Your task to perform on an android device: Go to Yahoo.com Image 0: 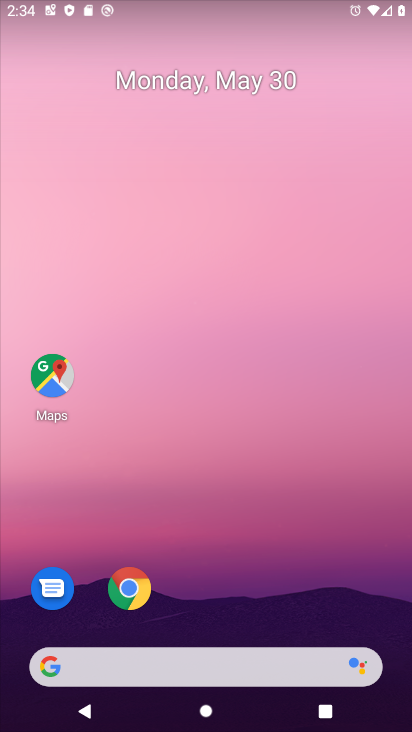
Step 0: click (148, 595)
Your task to perform on an android device: Go to Yahoo.com Image 1: 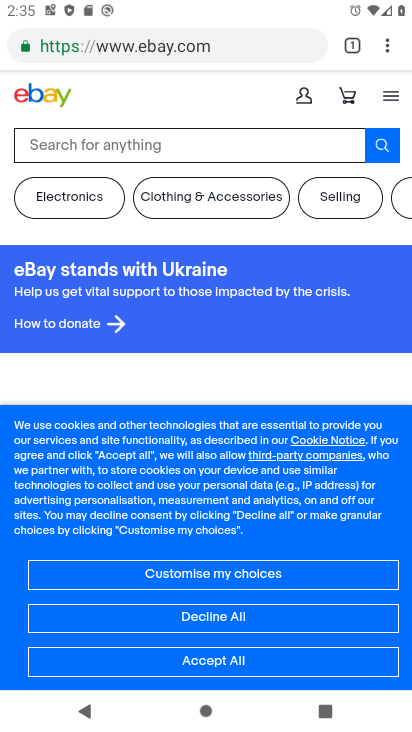
Step 1: click (269, 46)
Your task to perform on an android device: Go to Yahoo.com Image 2: 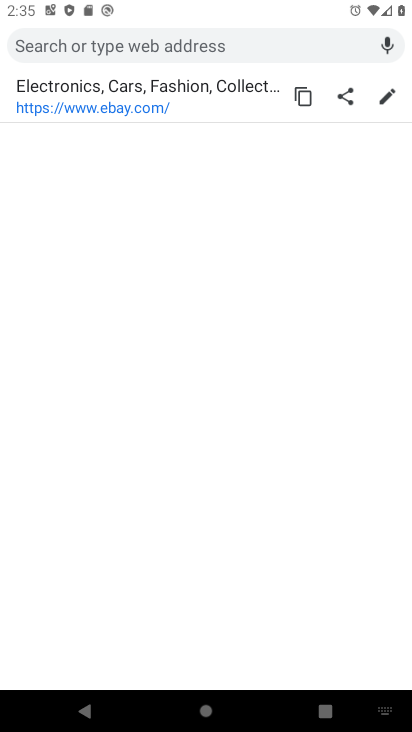
Step 2: type "yahoo"
Your task to perform on an android device: Go to Yahoo.com Image 3: 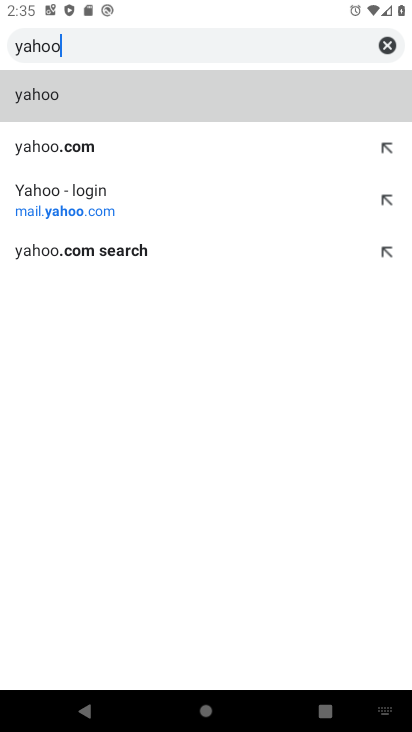
Step 3: click (186, 145)
Your task to perform on an android device: Go to Yahoo.com Image 4: 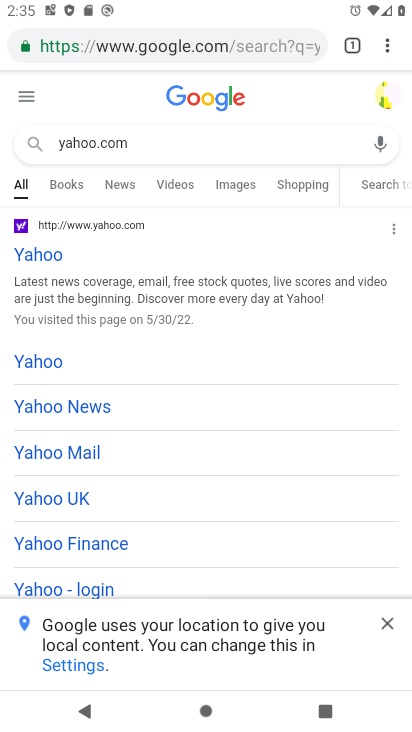
Step 4: click (50, 262)
Your task to perform on an android device: Go to Yahoo.com Image 5: 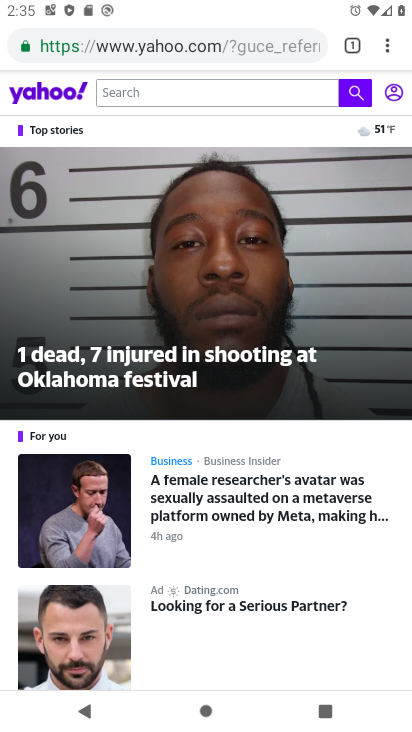
Step 5: task complete